Your task to perform on an android device: turn off smart reply in the gmail app Image 0: 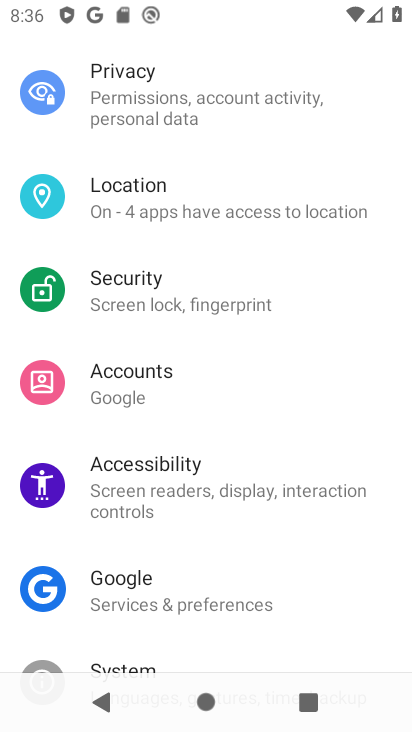
Step 0: press home button
Your task to perform on an android device: turn off smart reply in the gmail app Image 1: 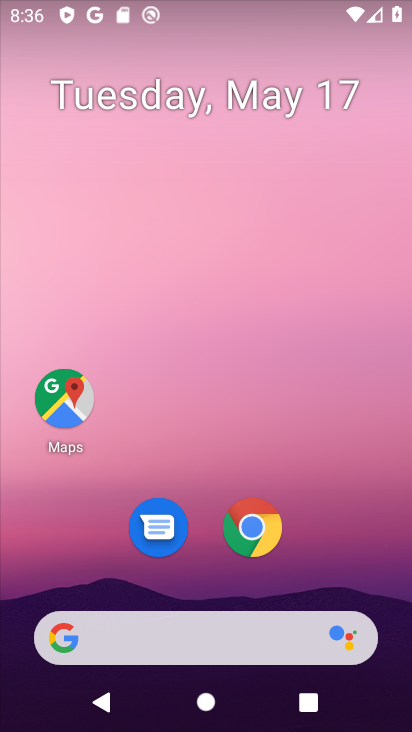
Step 1: drag from (199, 591) to (153, 32)
Your task to perform on an android device: turn off smart reply in the gmail app Image 2: 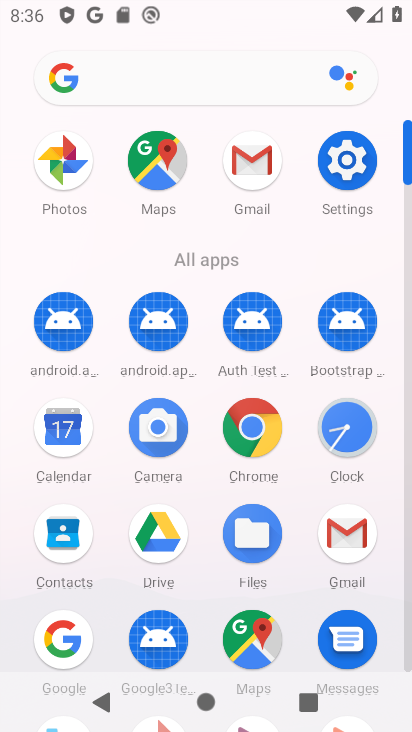
Step 2: click (337, 537)
Your task to perform on an android device: turn off smart reply in the gmail app Image 3: 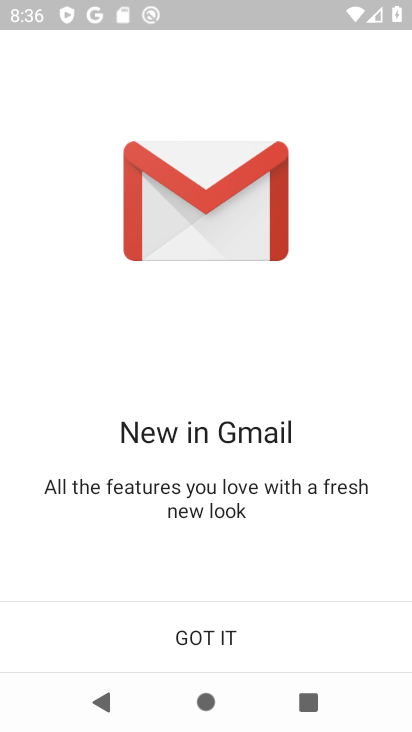
Step 3: click (260, 637)
Your task to perform on an android device: turn off smart reply in the gmail app Image 4: 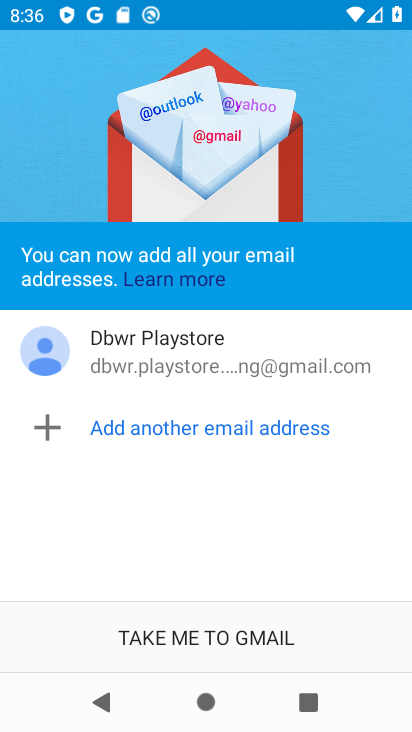
Step 4: click (279, 621)
Your task to perform on an android device: turn off smart reply in the gmail app Image 5: 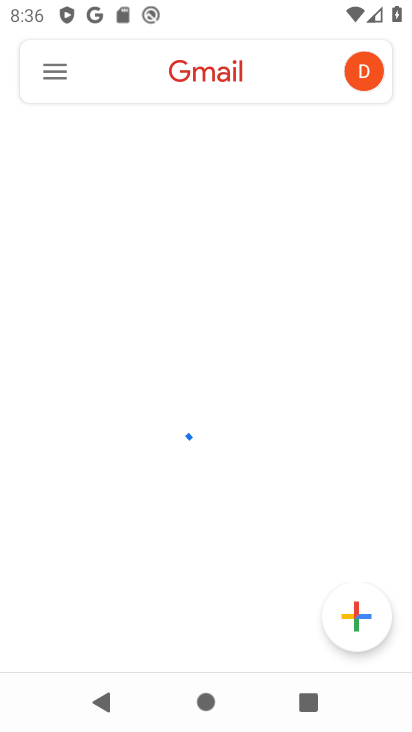
Step 5: click (54, 59)
Your task to perform on an android device: turn off smart reply in the gmail app Image 6: 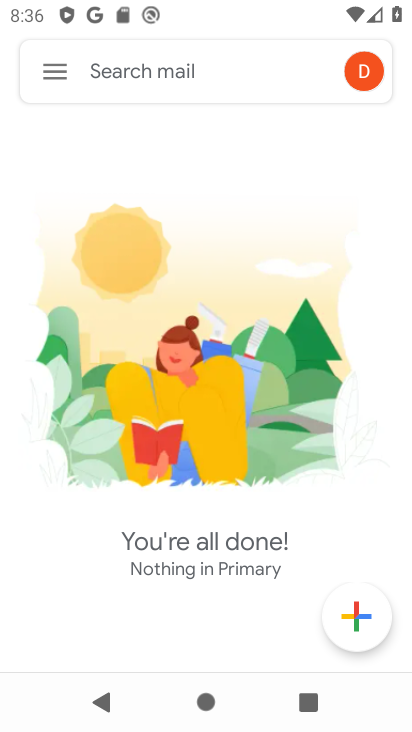
Step 6: click (59, 72)
Your task to perform on an android device: turn off smart reply in the gmail app Image 7: 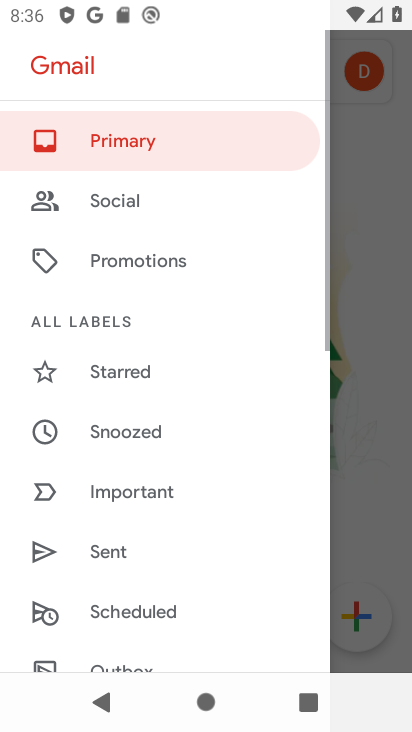
Step 7: drag from (108, 518) to (88, 0)
Your task to perform on an android device: turn off smart reply in the gmail app Image 8: 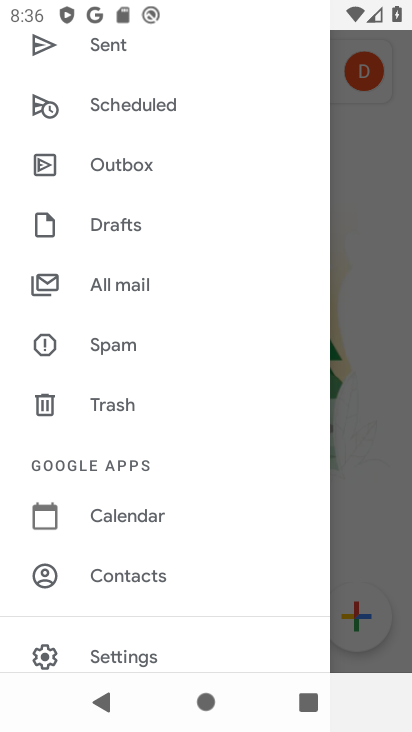
Step 8: click (106, 653)
Your task to perform on an android device: turn off smart reply in the gmail app Image 9: 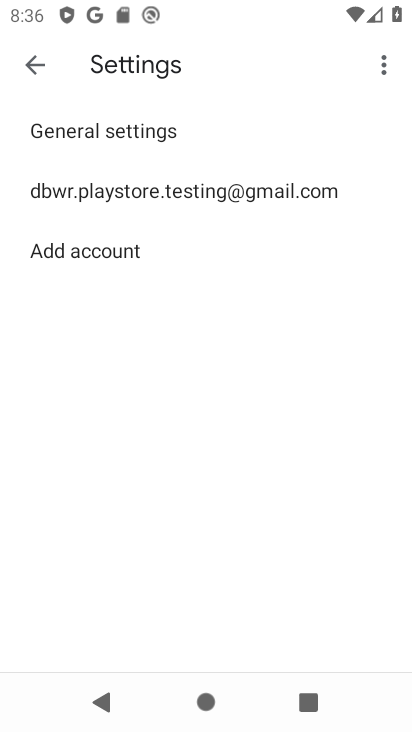
Step 9: click (60, 170)
Your task to perform on an android device: turn off smart reply in the gmail app Image 10: 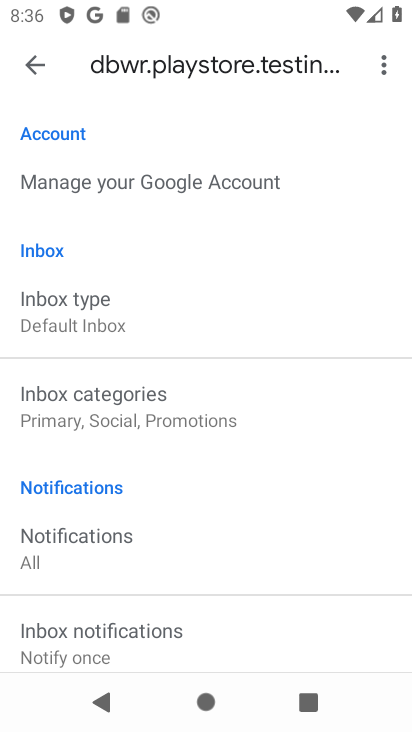
Step 10: drag from (185, 619) to (127, 188)
Your task to perform on an android device: turn off smart reply in the gmail app Image 11: 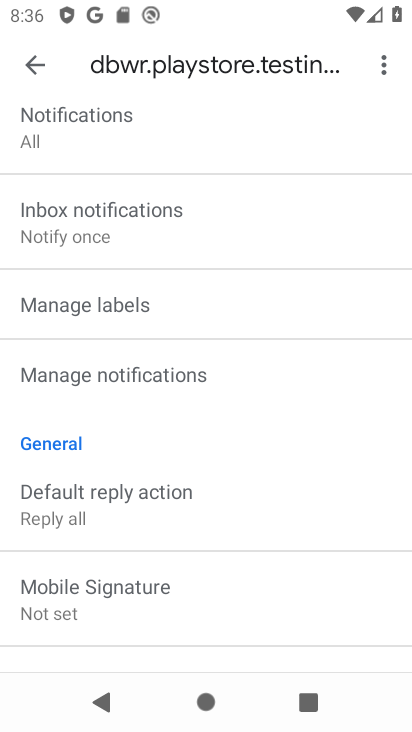
Step 11: drag from (211, 530) to (211, 116)
Your task to perform on an android device: turn off smart reply in the gmail app Image 12: 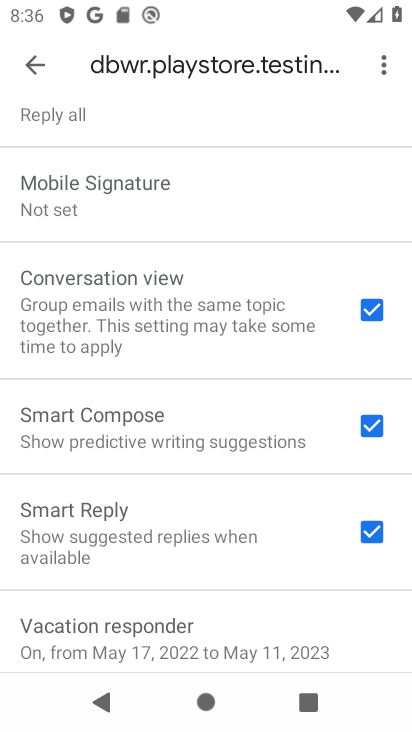
Step 12: click (368, 525)
Your task to perform on an android device: turn off smart reply in the gmail app Image 13: 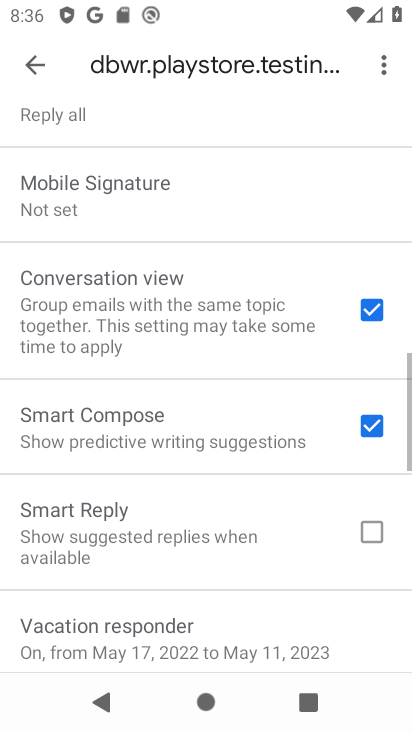
Step 13: task complete